Your task to perform on an android device: change timer sound Image 0: 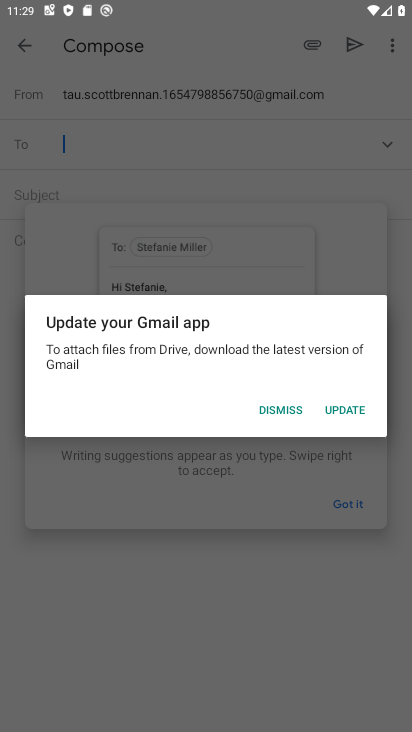
Step 0: press home button
Your task to perform on an android device: change timer sound Image 1: 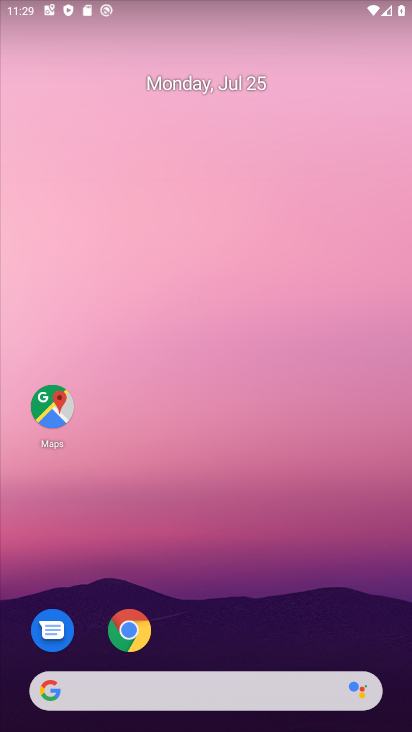
Step 1: drag from (372, 571) to (378, 148)
Your task to perform on an android device: change timer sound Image 2: 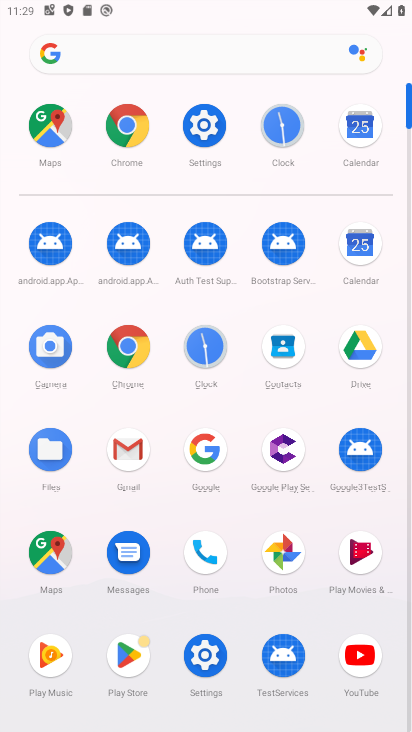
Step 2: click (211, 349)
Your task to perform on an android device: change timer sound Image 3: 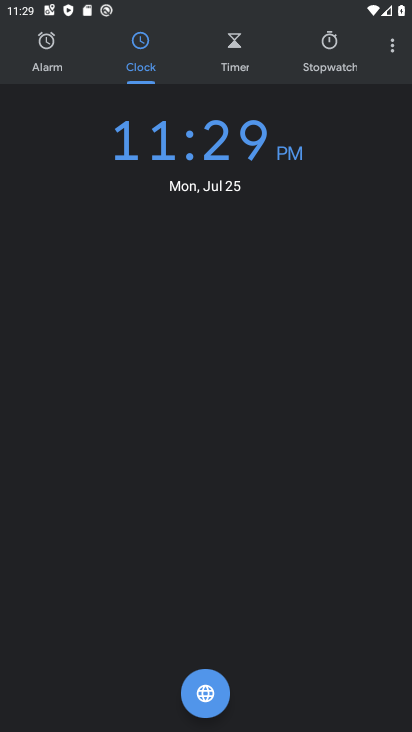
Step 3: click (390, 50)
Your task to perform on an android device: change timer sound Image 4: 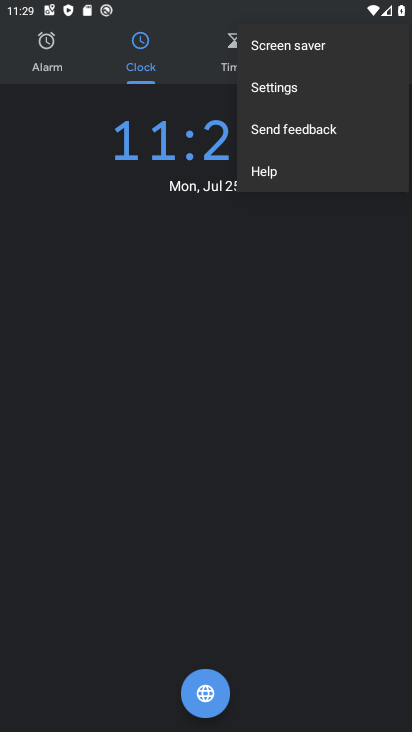
Step 4: click (321, 88)
Your task to perform on an android device: change timer sound Image 5: 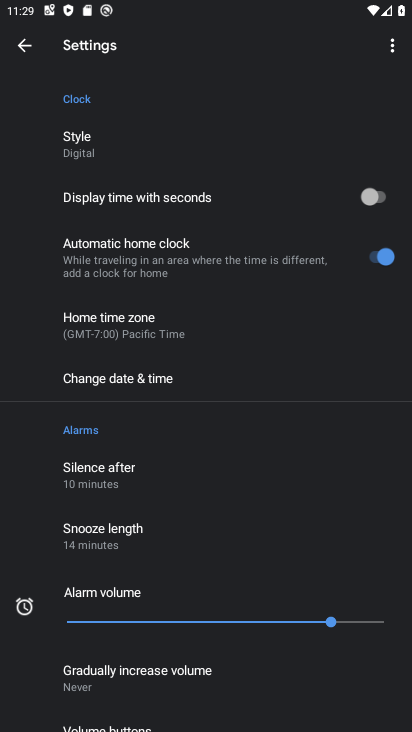
Step 5: drag from (311, 459) to (311, 374)
Your task to perform on an android device: change timer sound Image 6: 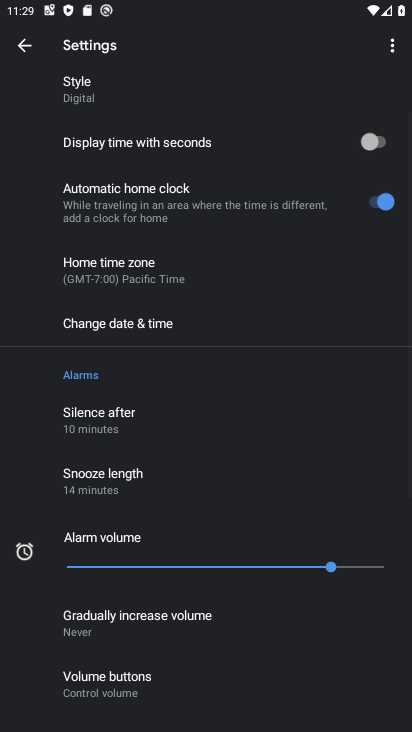
Step 6: drag from (292, 488) to (292, 396)
Your task to perform on an android device: change timer sound Image 7: 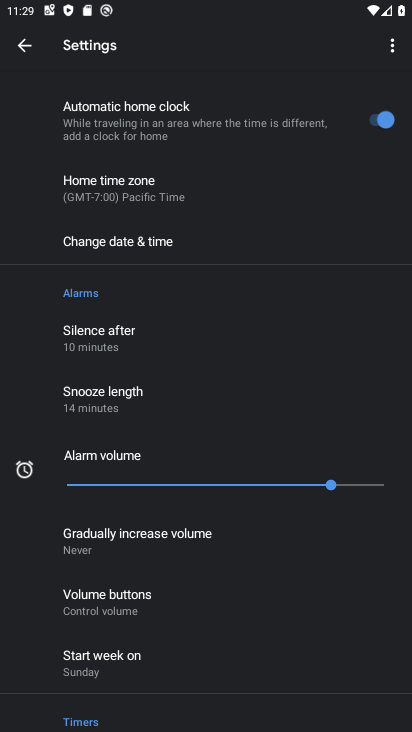
Step 7: drag from (282, 529) to (285, 433)
Your task to perform on an android device: change timer sound Image 8: 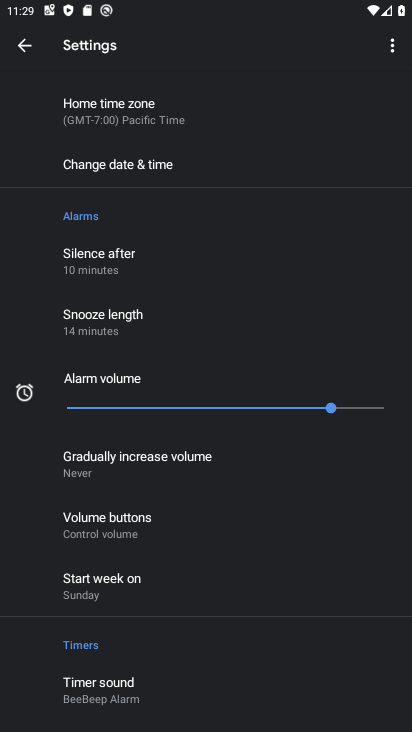
Step 8: drag from (282, 538) to (282, 471)
Your task to perform on an android device: change timer sound Image 9: 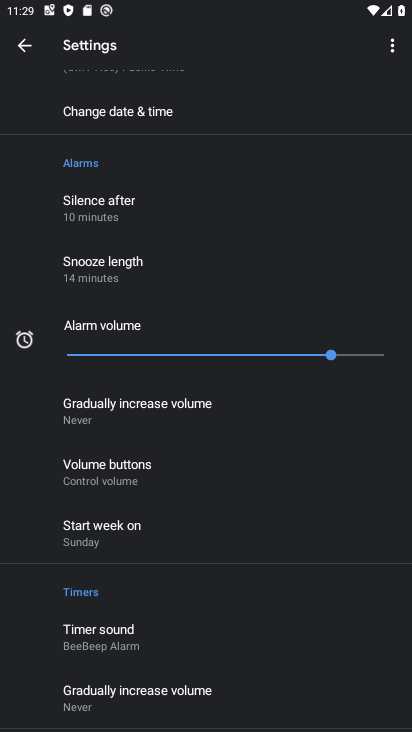
Step 9: drag from (282, 569) to (281, 403)
Your task to perform on an android device: change timer sound Image 10: 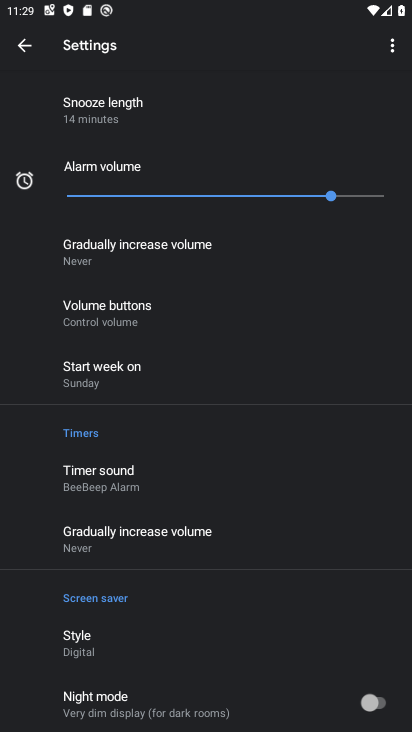
Step 10: click (282, 490)
Your task to perform on an android device: change timer sound Image 11: 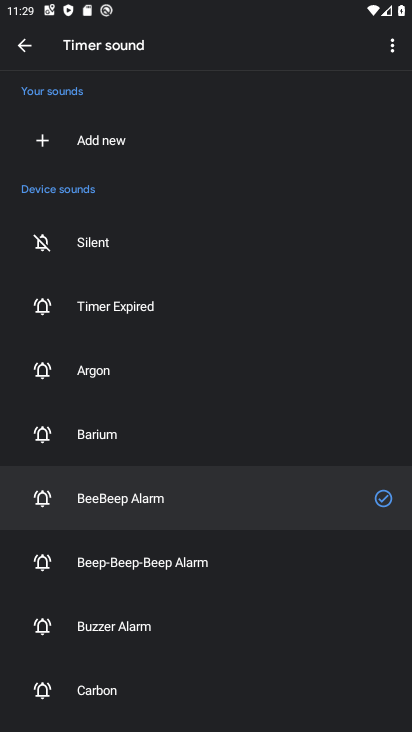
Step 11: click (223, 570)
Your task to perform on an android device: change timer sound Image 12: 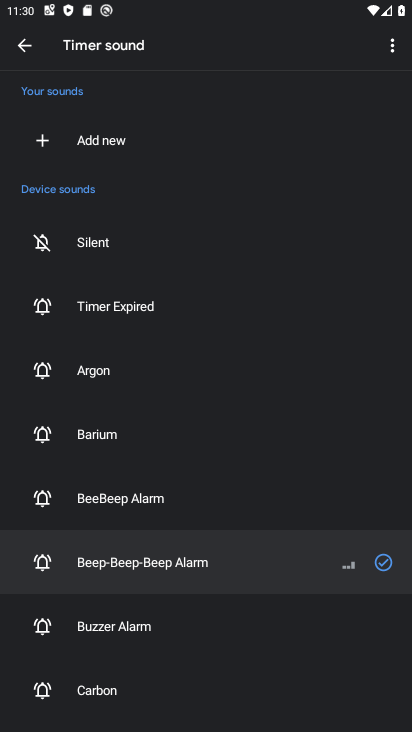
Step 12: task complete